Your task to perform on an android device: turn on javascript in the chrome app Image 0: 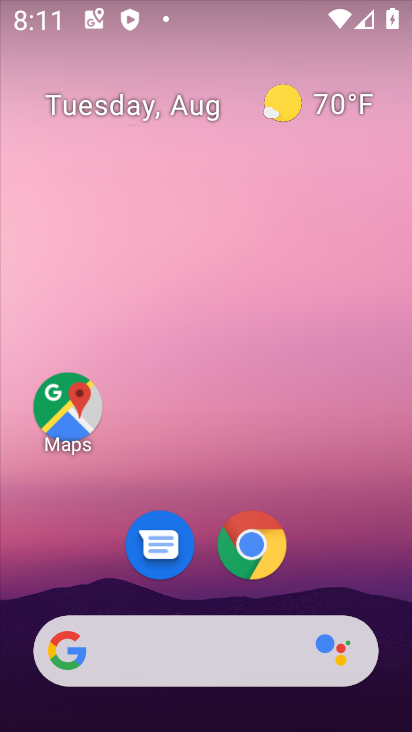
Step 0: drag from (199, 645) to (239, 210)
Your task to perform on an android device: turn on javascript in the chrome app Image 1: 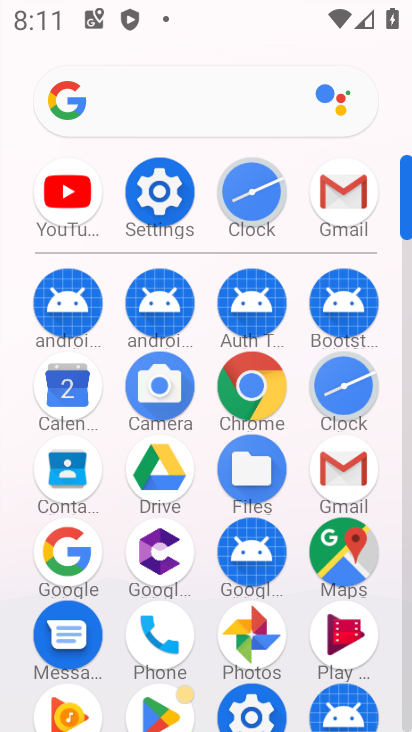
Step 1: click (260, 392)
Your task to perform on an android device: turn on javascript in the chrome app Image 2: 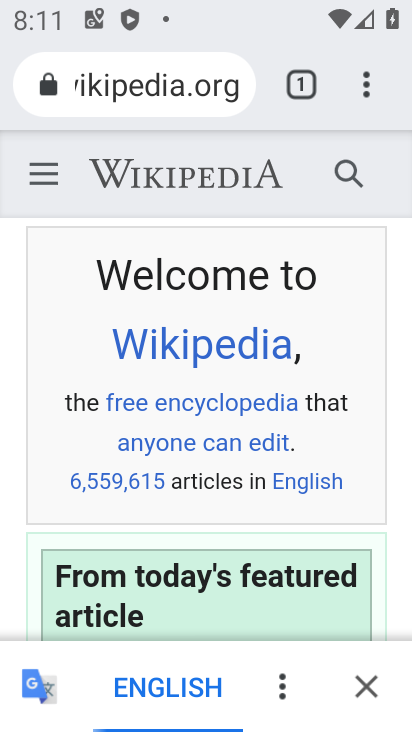
Step 2: click (371, 92)
Your task to perform on an android device: turn on javascript in the chrome app Image 3: 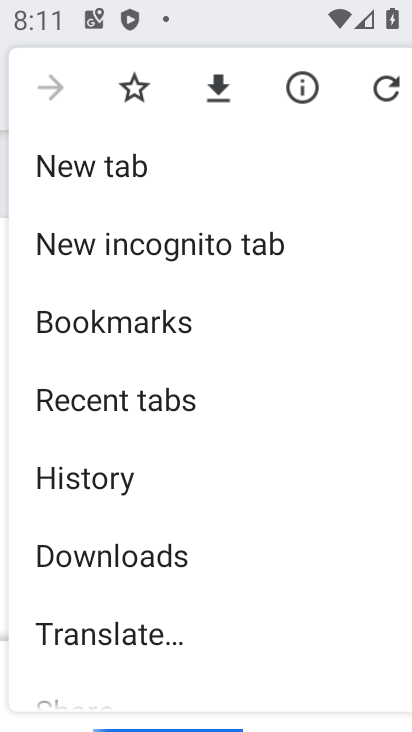
Step 3: drag from (232, 613) to (227, 228)
Your task to perform on an android device: turn on javascript in the chrome app Image 4: 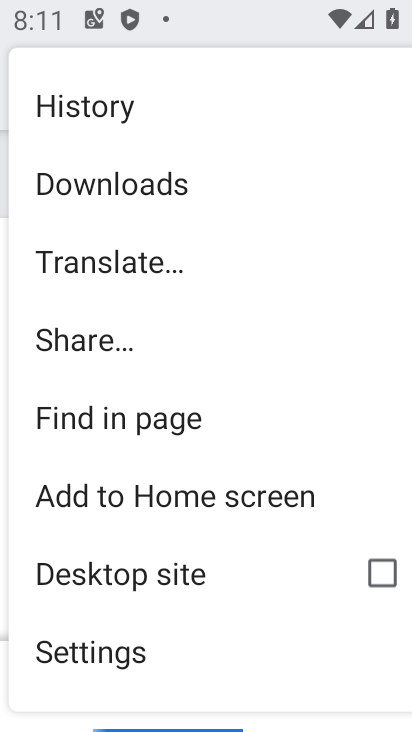
Step 4: click (146, 653)
Your task to perform on an android device: turn on javascript in the chrome app Image 5: 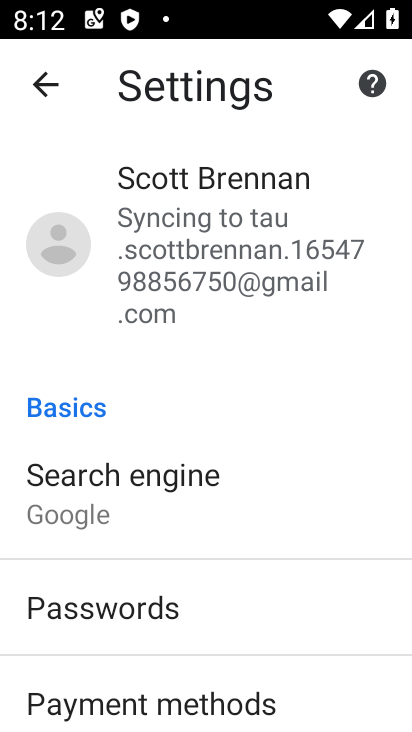
Step 5: drag from (156, 567) to (136, 15)
Your task to perform on an android device: turn on javascript in the chrome app Image 6: 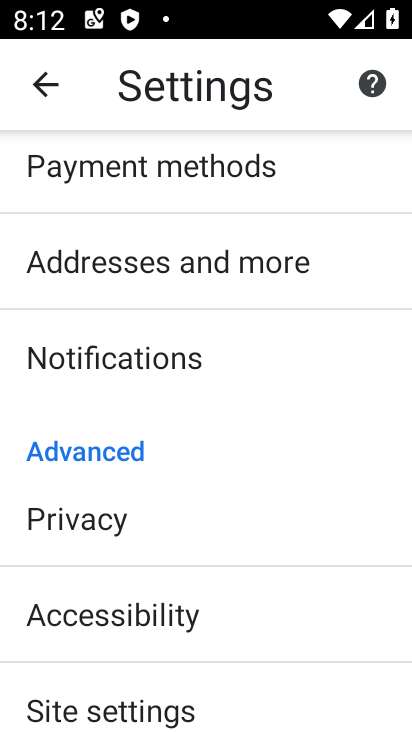
Step 6: click (121, 704)
Your task to perform on an android device: turn on javascript in the chrome app Image 7: 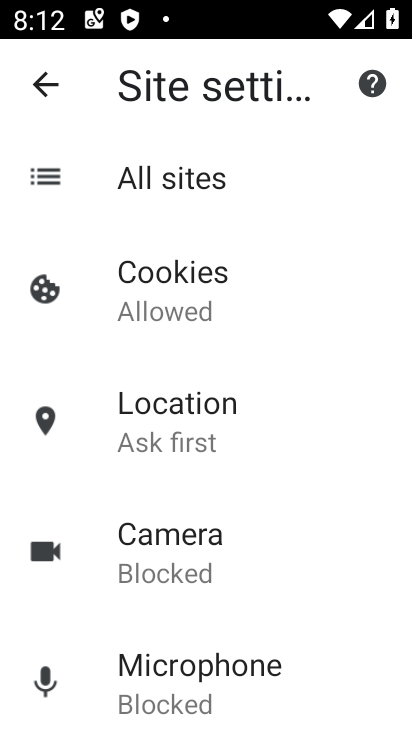
Step 7: drag from (206, 565) to (215, 257)
Your task to perform on an android device: turn on javascript in the chrome app Image 8: 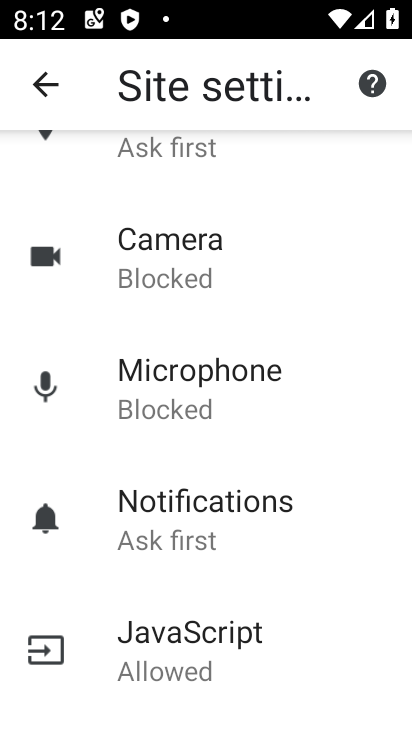
Step 8: click (166, 656)
Your task to perform on an android device: turn on javascript in the chrome app Image 9: 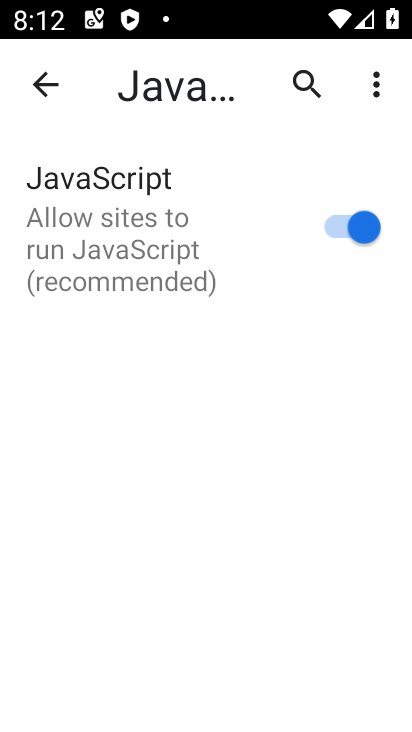
Step 9: task complete